Your task to perform on an android device: toggle javascript in the chrome app Image 0: 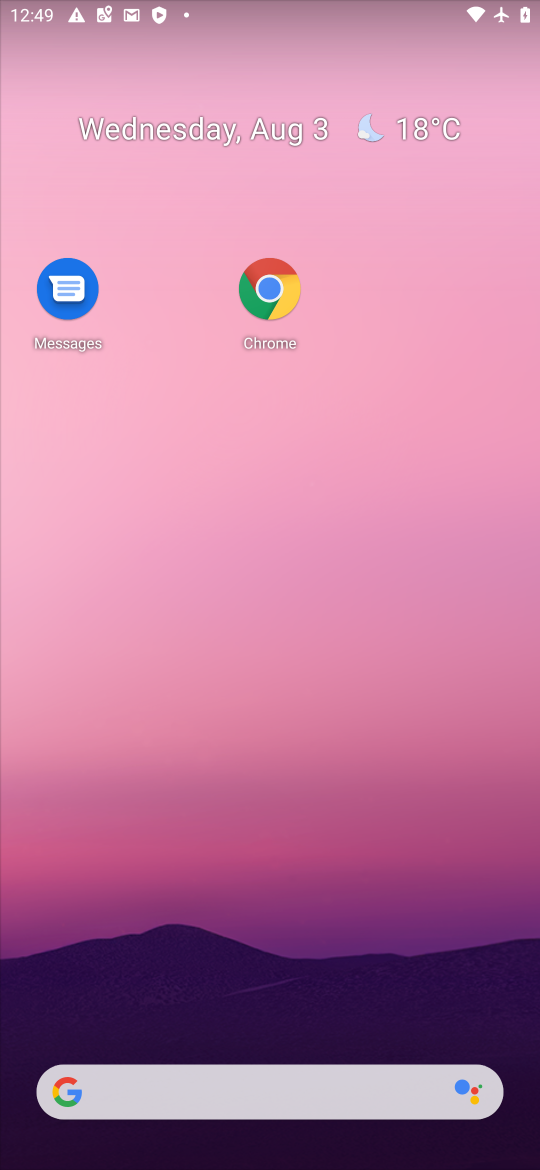
Step 0: click (257, 321)
Your task to perform on an android device: toggle javascript in the chrome app Image 1: 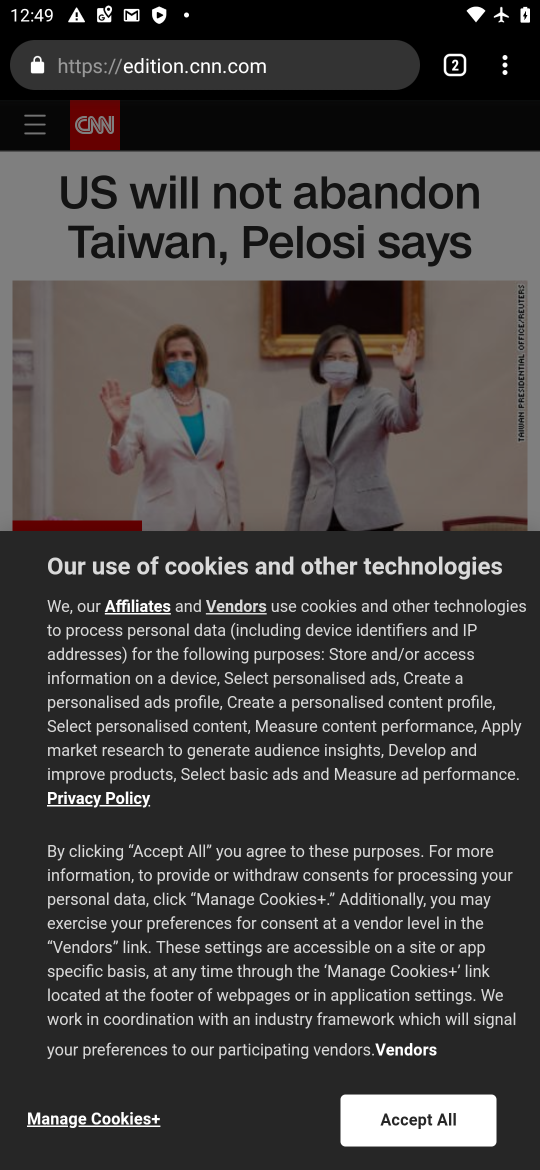
Step 1: click (497, 74)
Your task to perform on an android device: toggle javascript in the chrome app Image 2: 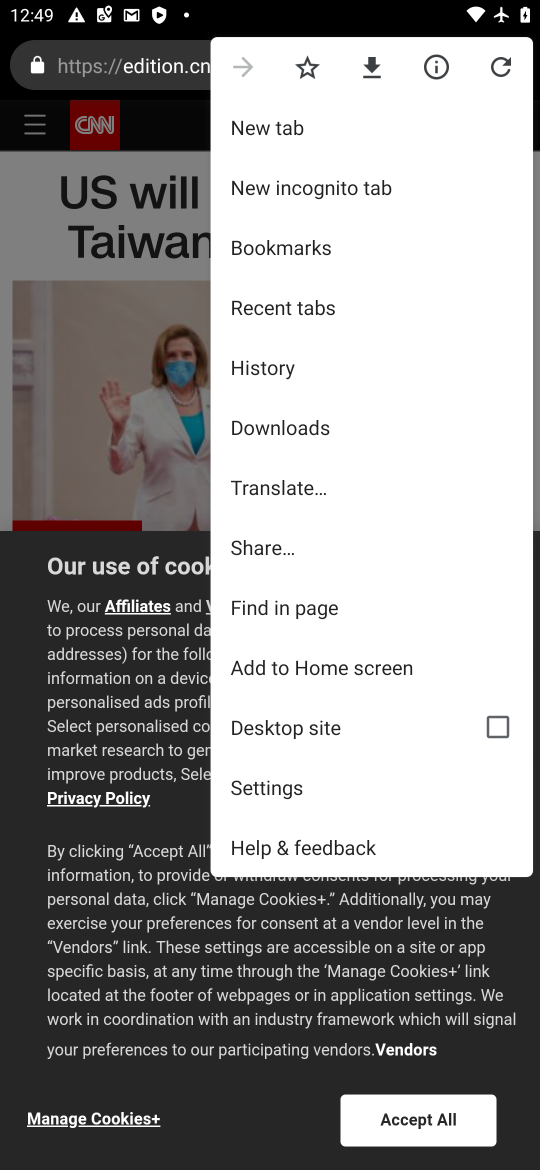
Step 2: click (293, 790)
Your task to perform on an android device: toggle javascript in the chrome app Image 3: 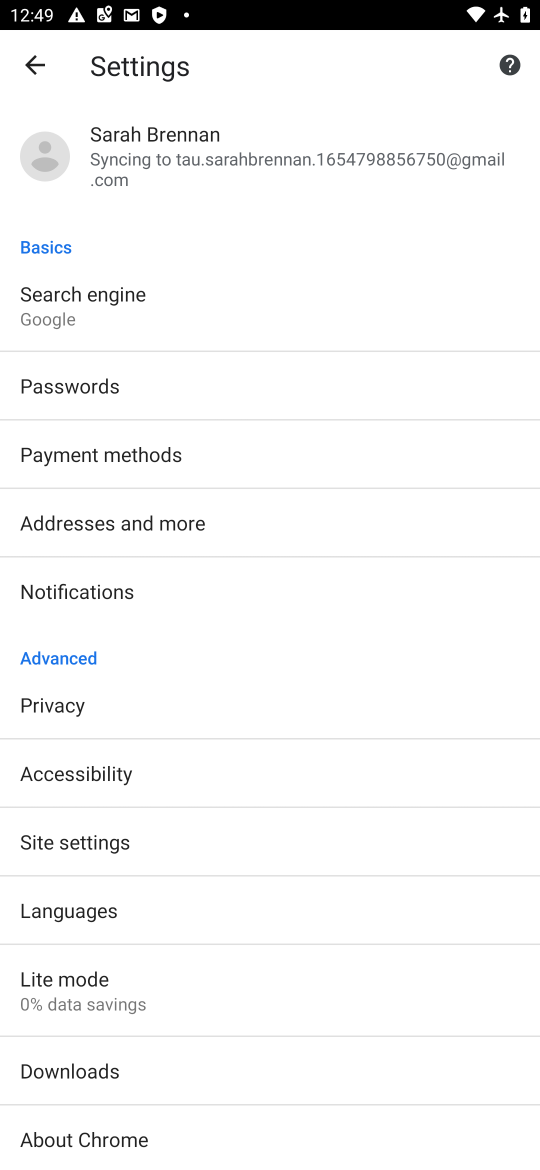
Step 3: click (166, 851)
Your task to perform on an android device: toggle javascript in the chrome app Image 4: 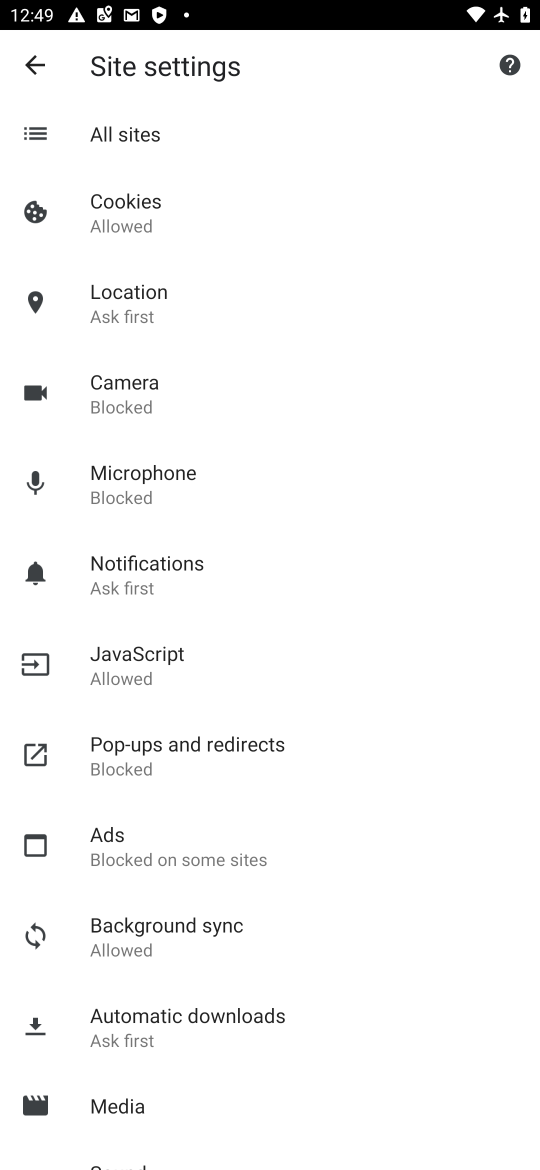
Step 4: click (284, 660)
Your task to perform on an android device: toggle javascript in the chrome app Image 5: 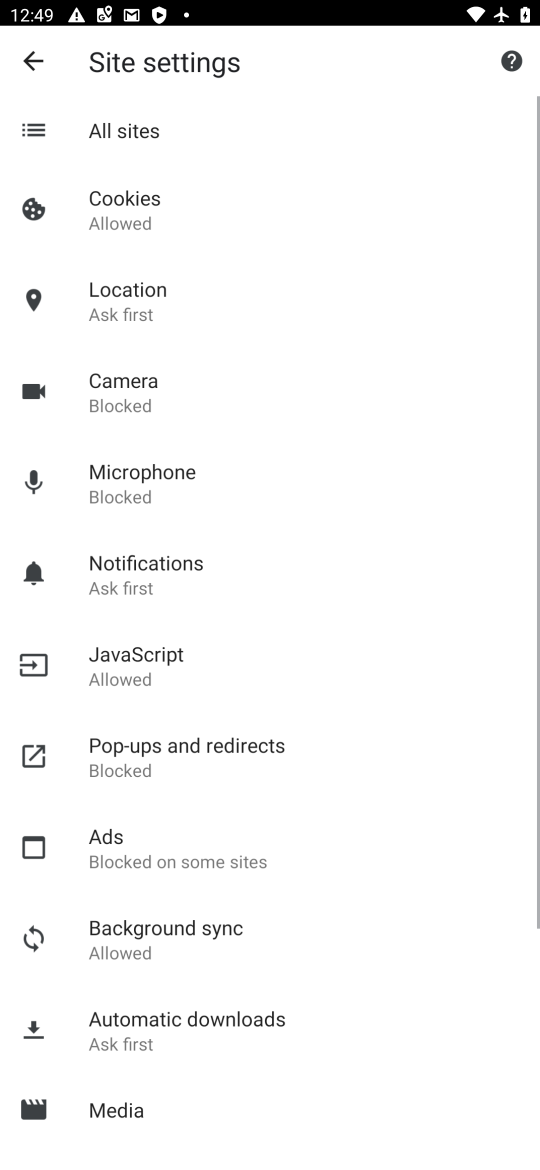
Step 5: task complete